Your task to perform on an android device: Show me popular videos on Youtube Image 0: 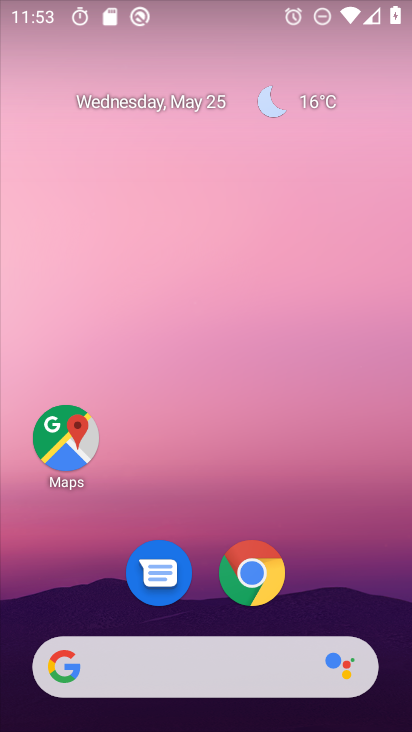
Step 0: drag from (347, 544) to (362, 2)
Your task to perform on an android device: Show me popular videos on Youtube Image 1: 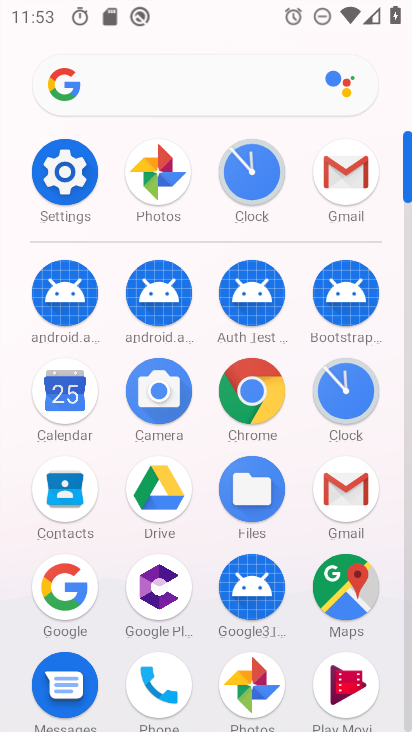
Step 1: click (409, 597)
Your task to perform on an android device: Show me popular videos on Youtube Image 2: 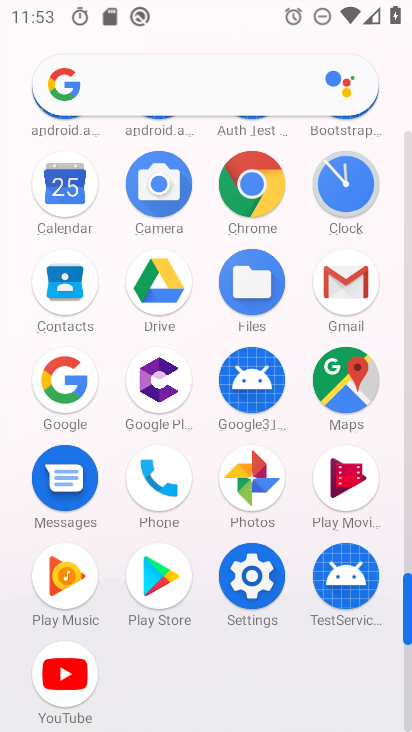
Step 2: click (61, 673)
Your task to perform on an android device: Show me popular videos on Youtube Image 3: 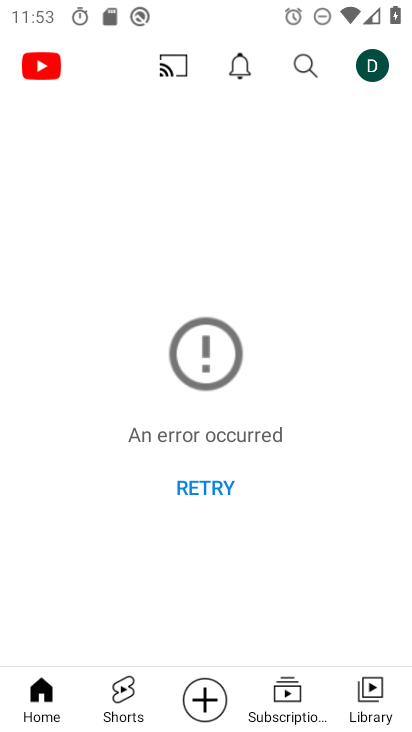
Step 3: click (41, 698)
Your task to perform on an android device: Show me popular videos on Youtube Image 4: 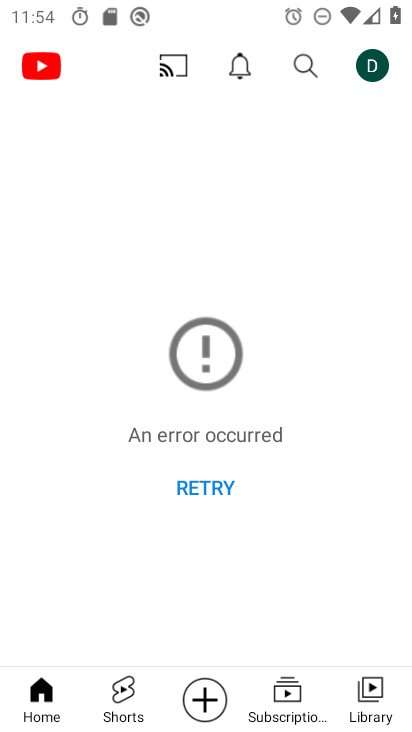
Step 4: click (185, 487)
Your task to perform on an android device: Show me popular videos on Youtube Image 5: 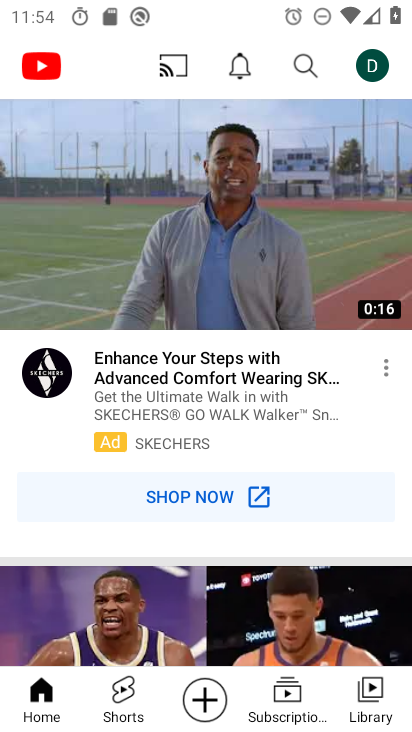
Step 5: task complete